Your task to perform on an android device: Search for vegetarian restaurants on Maps Image 0: 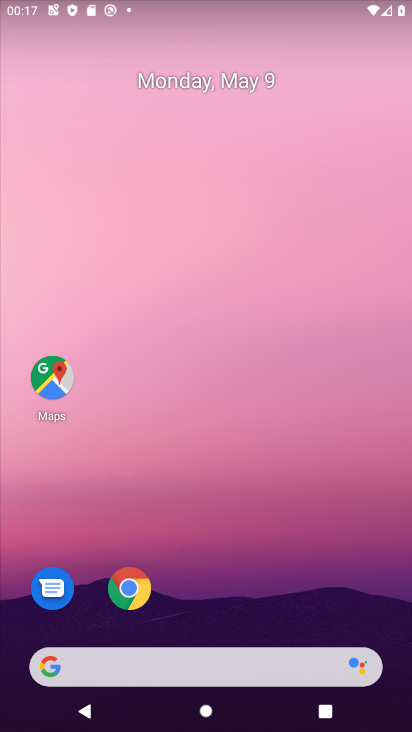
Step 0: click (51, 383)
Your task to perform on an android device: Search for vegetarian restaurants on Maps Image 1: 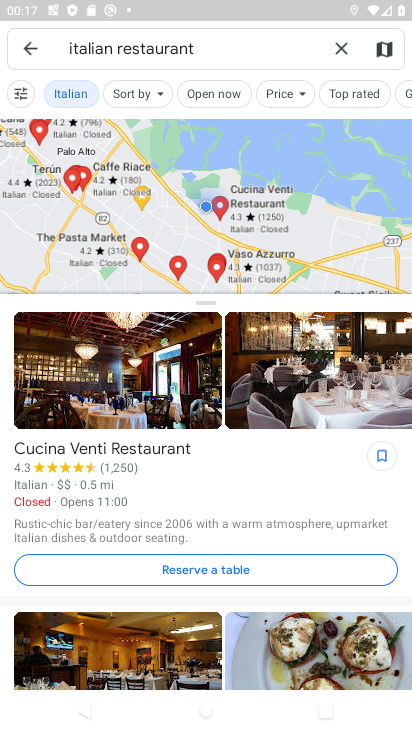
Step 1: click (346, 48)
Your task to perform on an android device: Search for vegetarian restaurants on Maps Image 2: 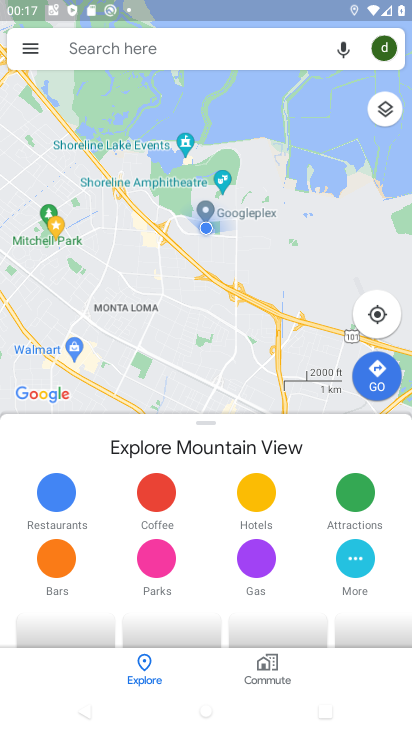
Step 2: click (174, 37)
Your task to perform on an android device: Search for vegetarian restaurants on Maps Image 3: 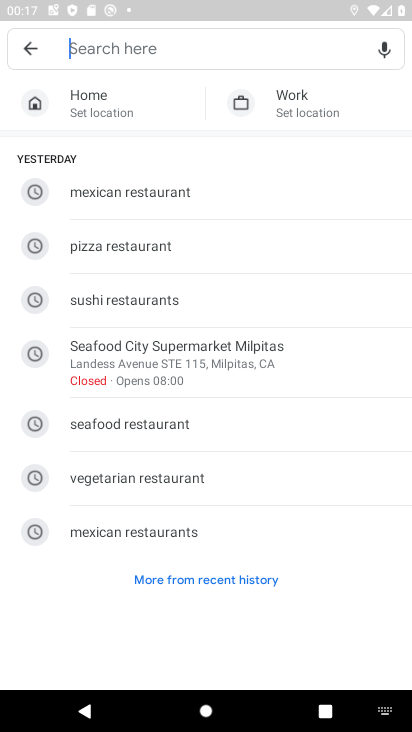
Step 3: click (152, 476)
Your task to perform on an android device: Search for vegetarian restaurants on Maps Image 4: 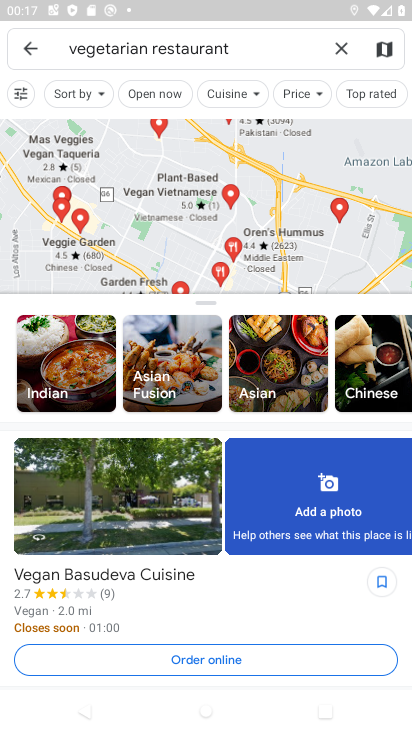
Step 4: task complete